Your task to perform on an android device: toggle wifi Image 0: 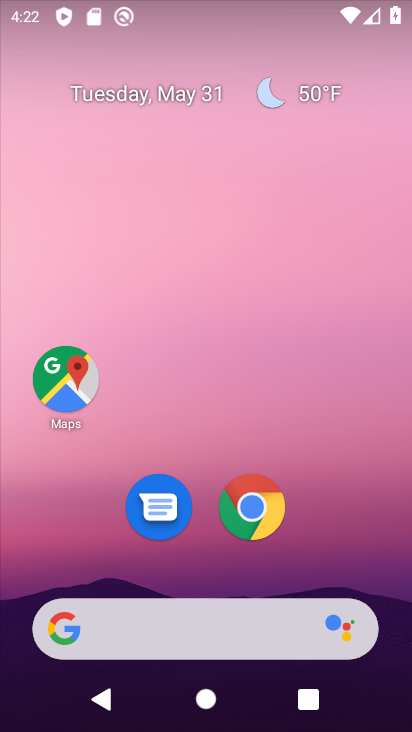
Step 0: drag from (334, 554) to (186, 42)
Your task to perform on an android device: toggle wifi Image 1: 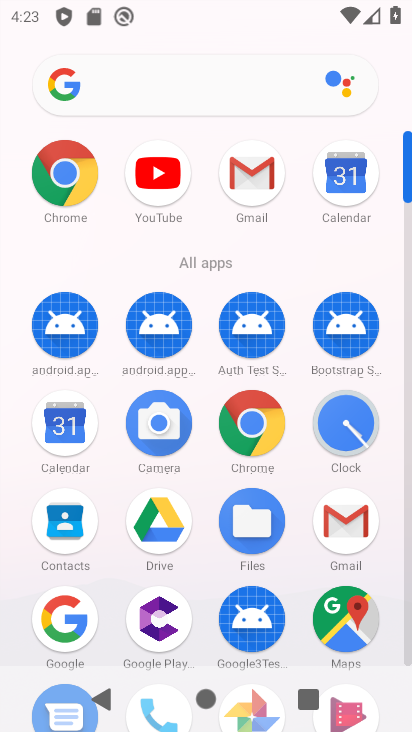
Step 1: drag from (206, 469) to (162, 37)
Your task to perform on an android device: toggle wifi Image 2: 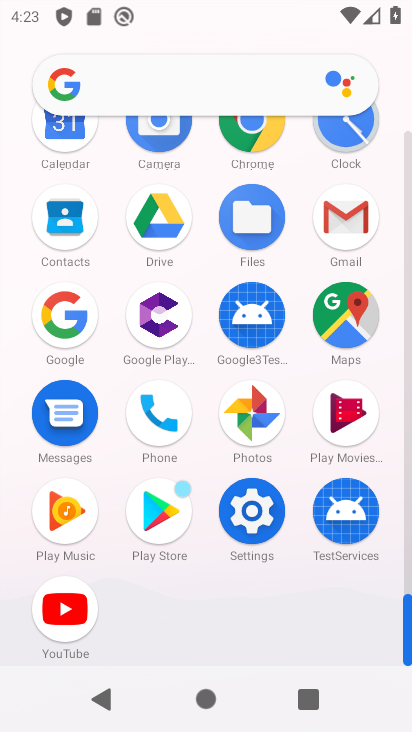
Step 2: click (243, 512)
Your task to perform on an android device: toggle wifi Image 3: 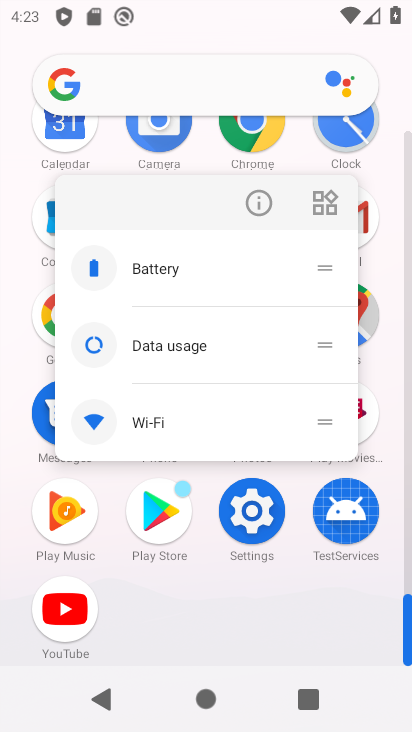
Step 3: click (243, 509)
Your task to perform on an android device: toggle wifi Image 4: 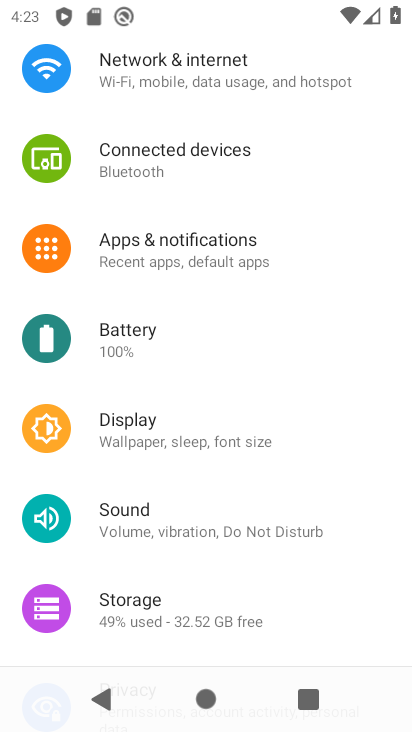
Step 4: click (221, 74)
Your task to perform on an android device: toggle wifi Image 5: 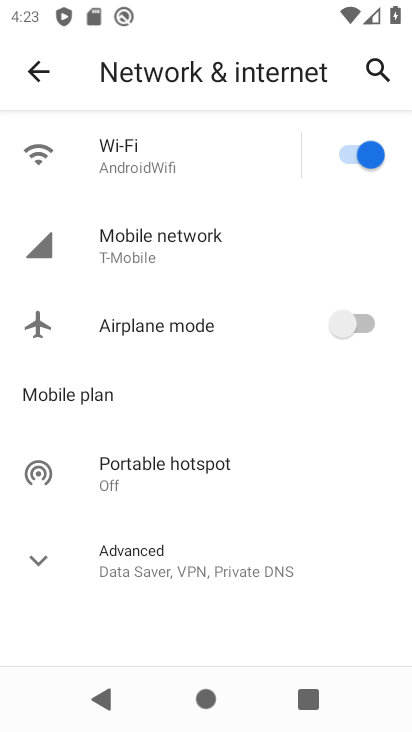
Step 5: click (353, 146)
Your task to perform on an android device: toggle wifi Image 6: 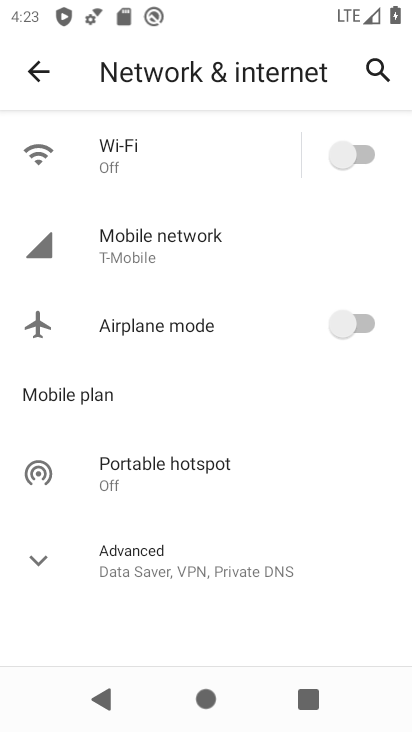
Step 6: task complete